Your task to perform on an android device: delete location history Image 0: 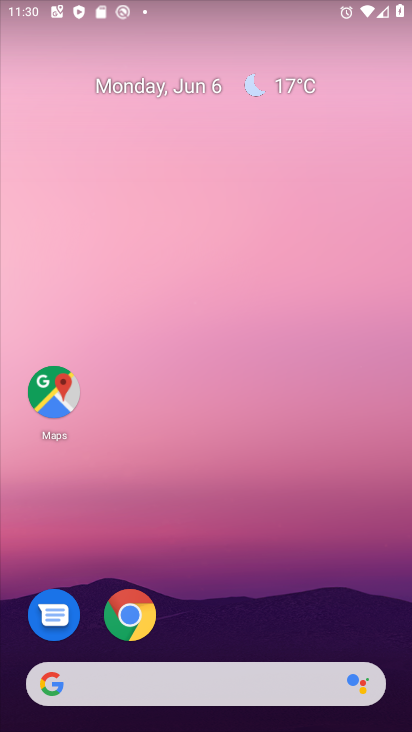
Step 0: press home button
Your task to perform on an android device: delete location history Image 1: 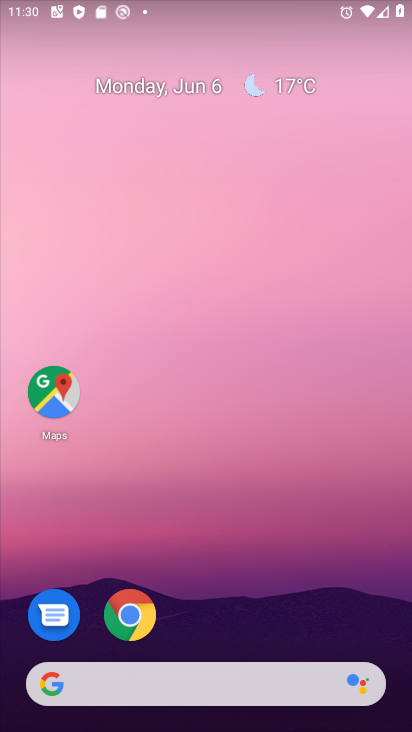
Step 1: click (54, 388)
Your task to perform on an android device: delete location history Image 2: 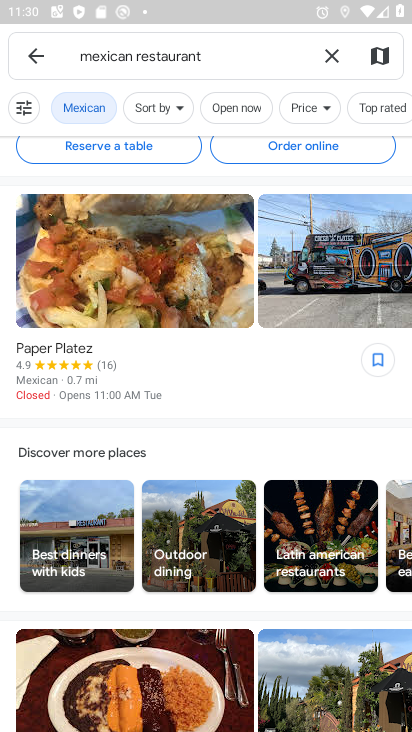
Step 2: click (37, 50)
Your task to perform on an android device: delete location history Image 3: 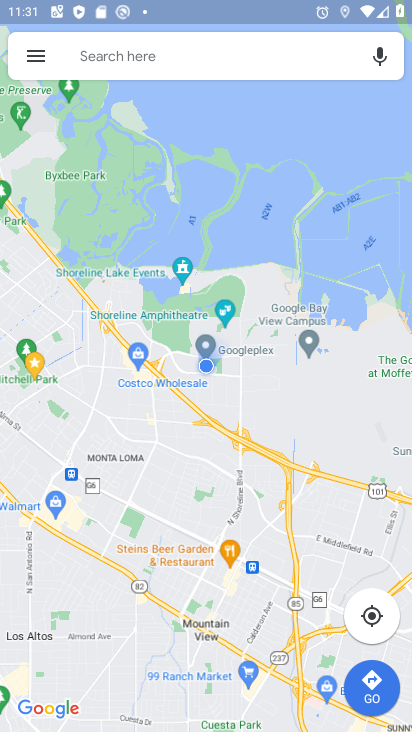
Step 3: click (34, 59)
Your task to perform on an android device: delete location history Image 4: 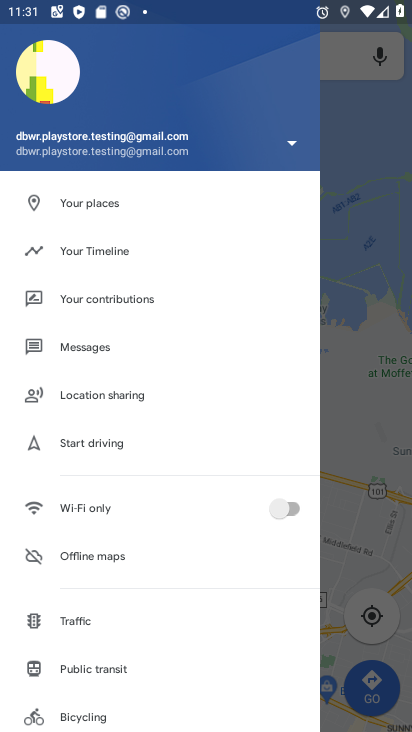
Step 4: click (122, 249)
Your task to perform on an android device: delete location history Image 5: 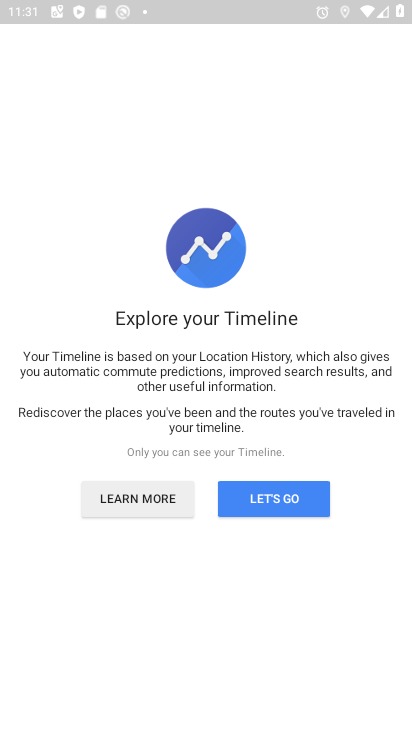
Step 5: click (269, 488)
Your task to perform on an android device: delete location history Image 6: 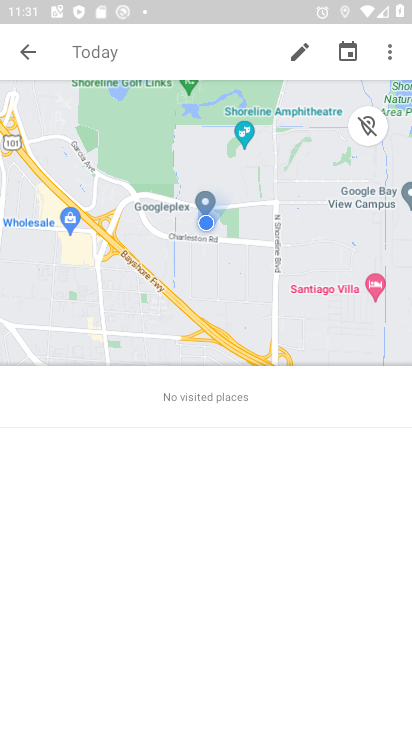
Step 6: click (392, 45)
Your task to perform on an android device: delete location history Image 7: 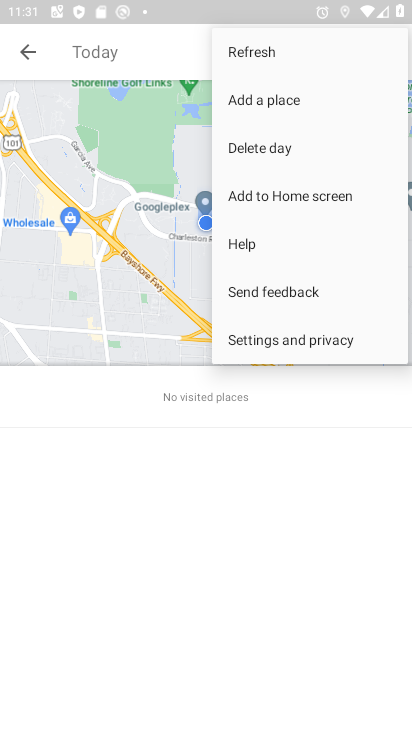
Step 7: click (298, 341)
Your task to perform on an android device: delete location history Image 8: 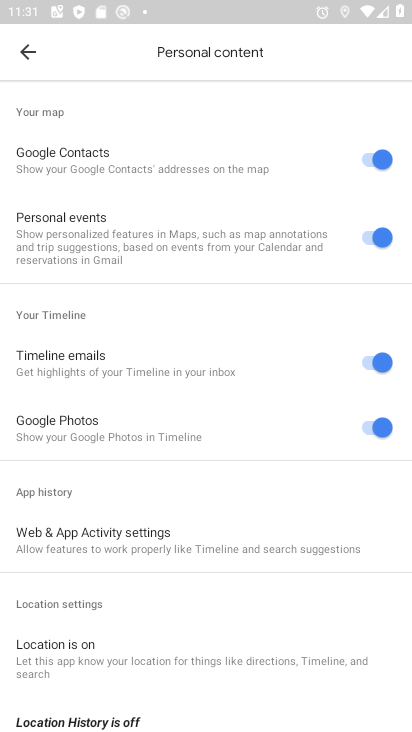
Step 8: drag from (145, 641) to (168, 74)
Your task to perform on an android device: delete location history Image 9: 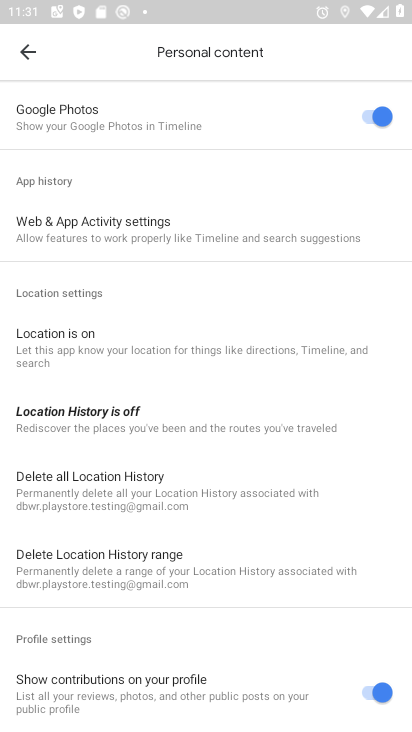
Step 9: click (150, 491)
Your task to perform on an android device: delete location history Image 10: 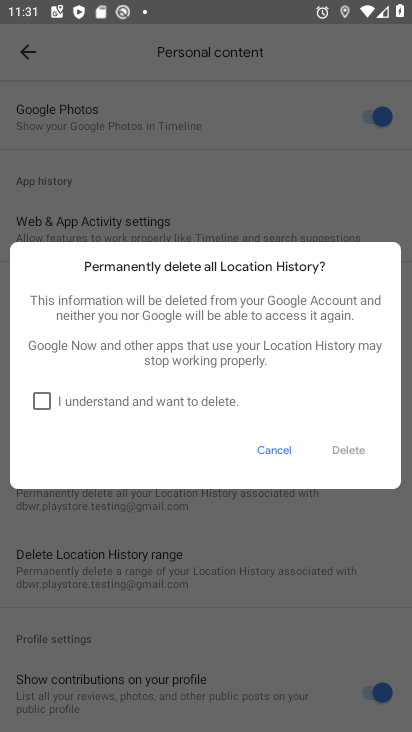
Step 10: click (48, 389)
Your task to perform on an android device: delete location history Image 11: 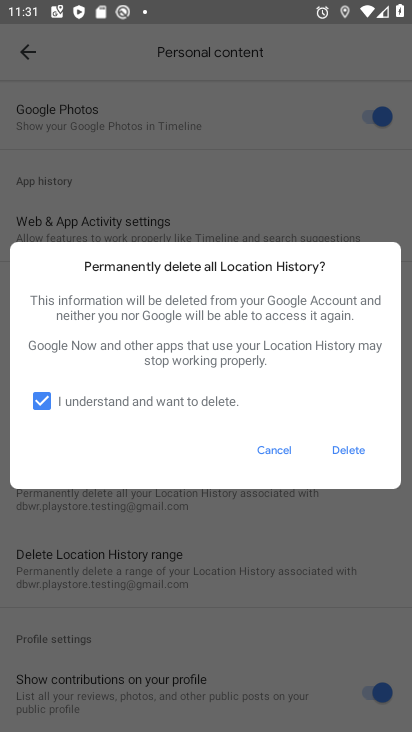
Step 11: click (358, 449)
Your task to perform on an android device: delete location history Image 12: 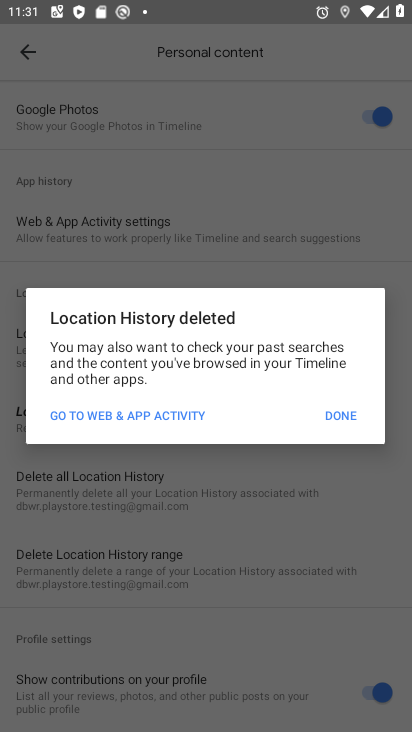
Step 12: click (340, 403)
Your task to perform on an android device: delete location history Image 13: 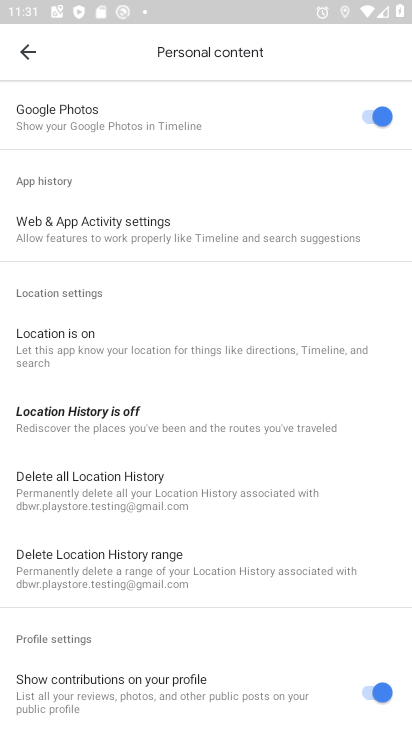
Step 13: task complete